Your task to perform on an android device: uninstall "Pandora - Music & Podcasts" Image 0: 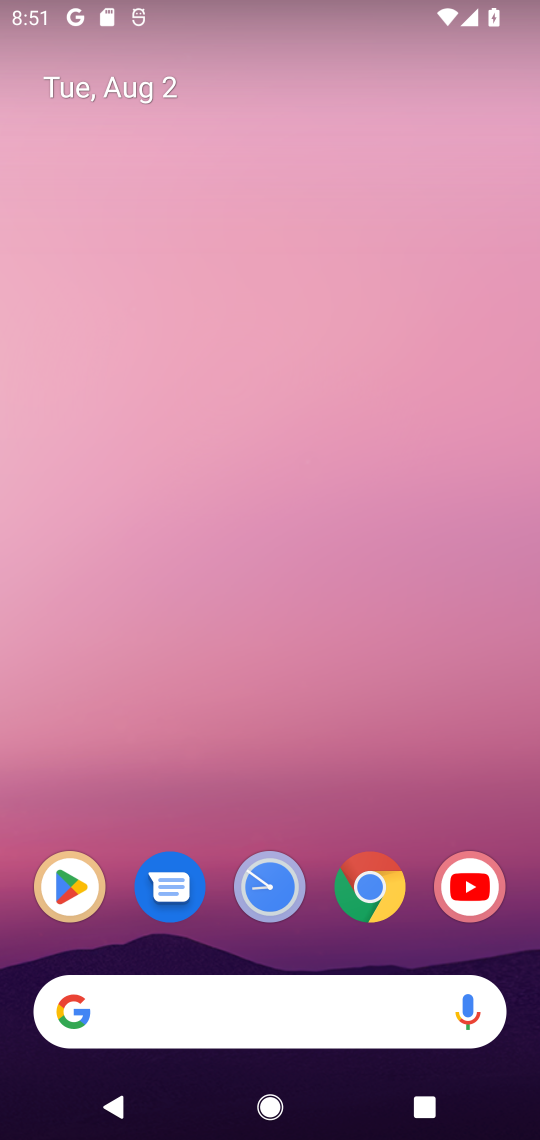
Step 0: click (65, 893)
Your task to perform on an android device: uninstall "Pandora - Music & Podcasts" Image 1: 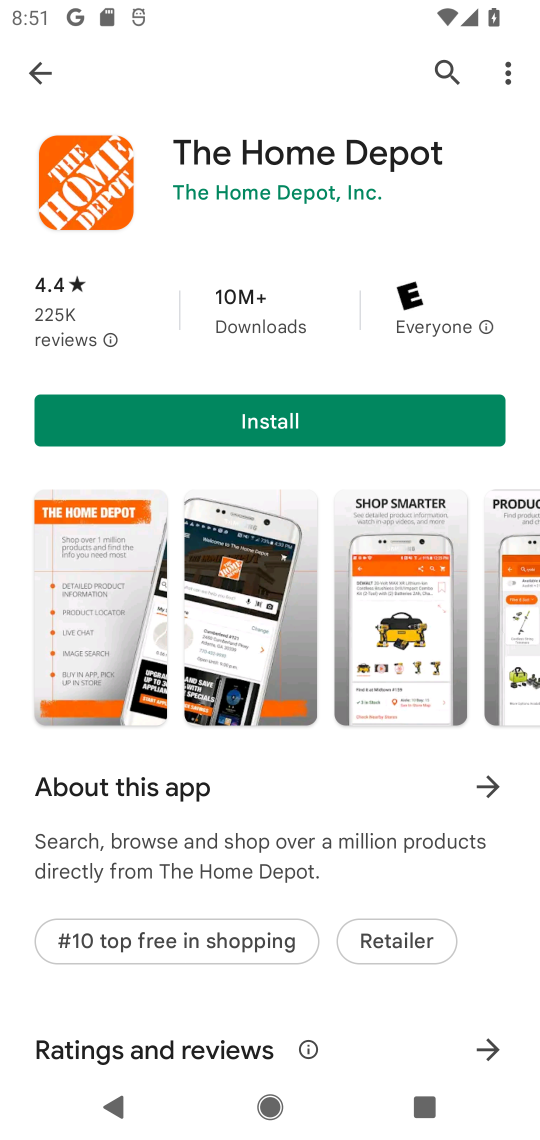
Step 1: click (442, 56)
Your task to perform on an android device: uninstall "Pandora - Music & Podcasts" Image 2: 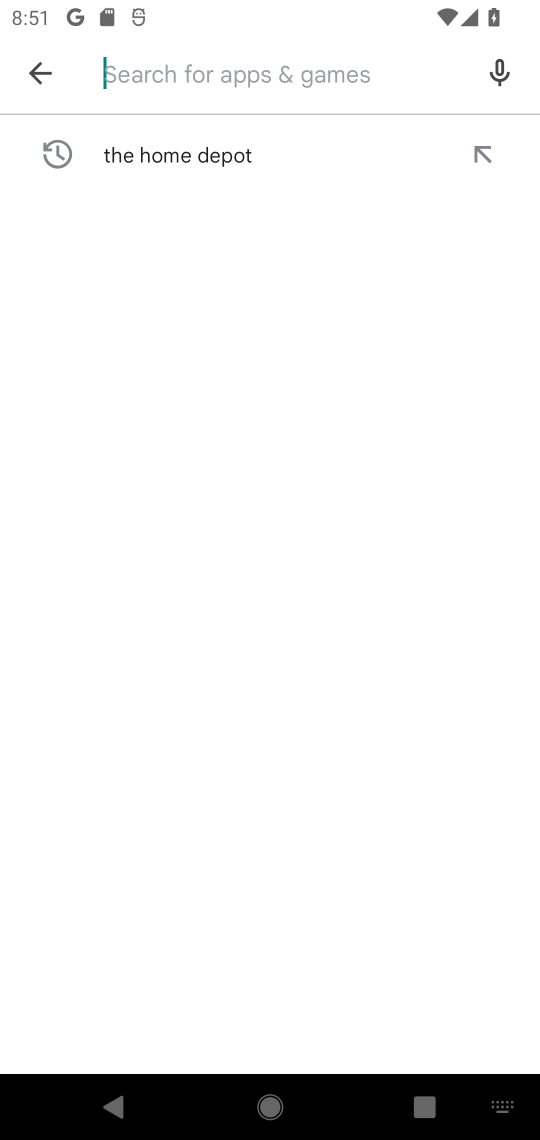
Step 2: type "pandora - music & podcasts"
Your task to perform on an android device: uninstall "Pandora - Music & Podcasts" Image 3: 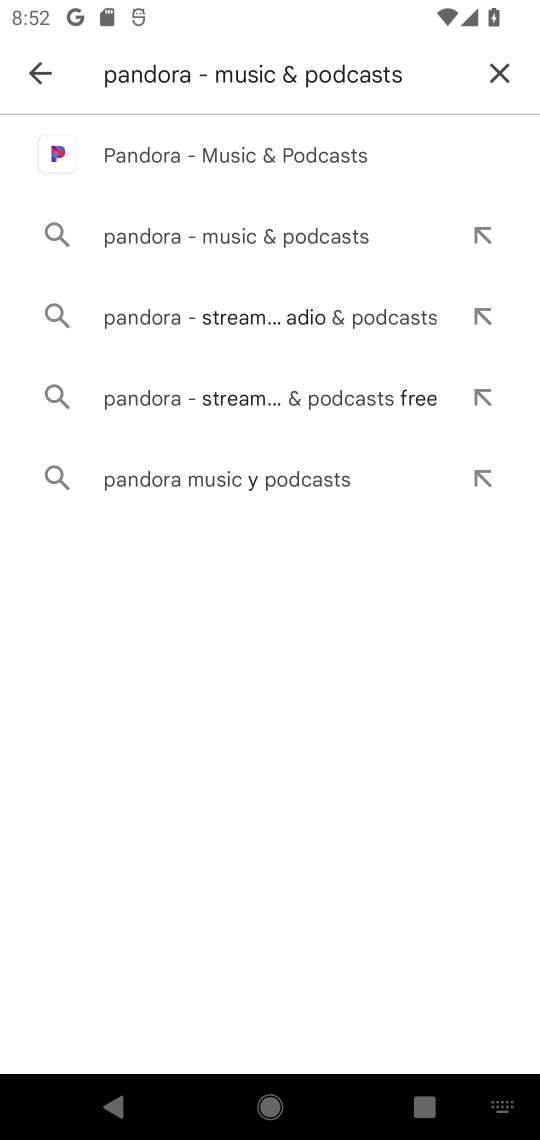
Step 3: click (346, 146)
Your task to perform on an android device: uninstall "Pandora - Music & Podcasts" Image 4: 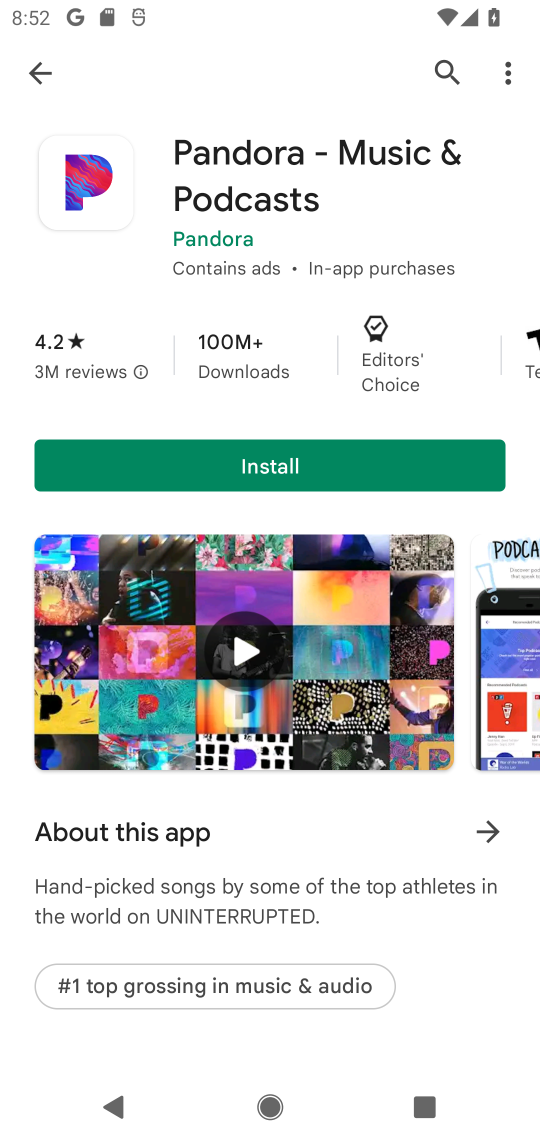
Step 4: click (346, 146)
Your task to perform on an android device: uninstall "Pandora - Music & Podcasts" Image 5: 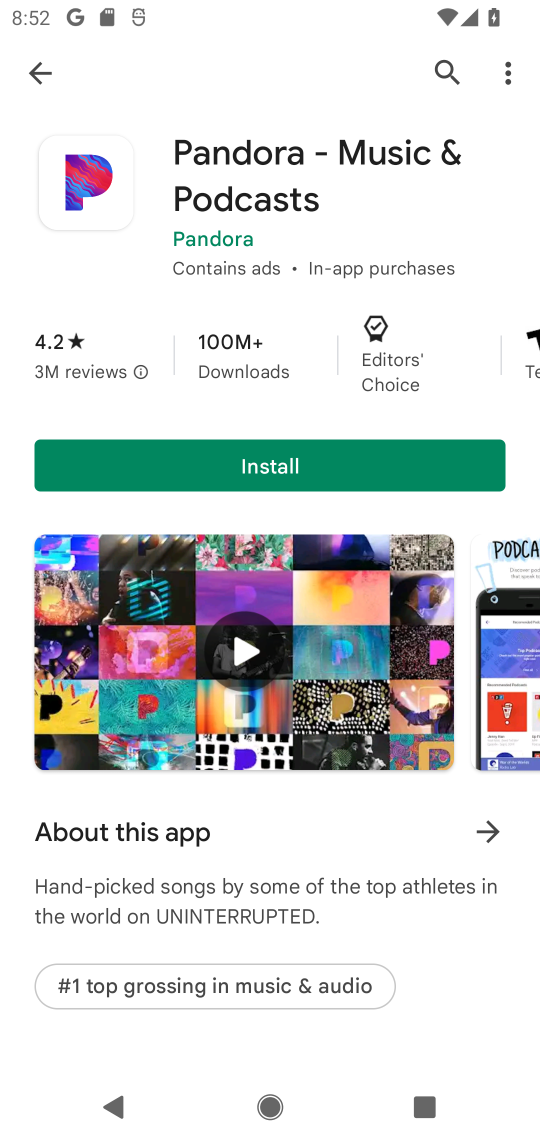
Step 5: task complete